Your task to perform on an android device: Open calendar and show me the fourth week of next month Image 0: 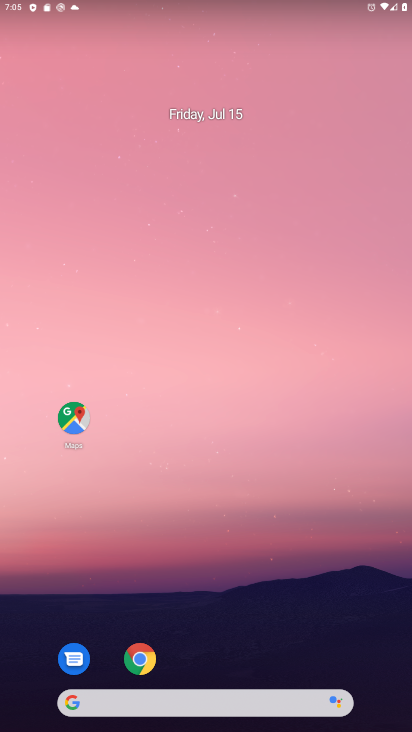
Step 0: drag from (342, 656) to (248, 22)
Your task to perform on an android device: Open calendar and show me the fourth week of next month Image 1: 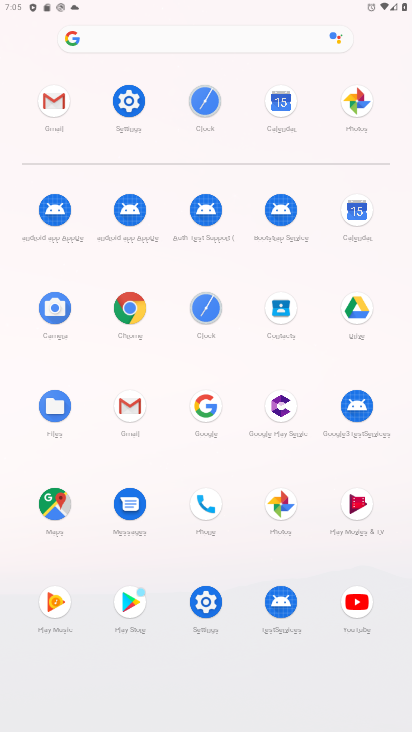
Step 1: click (356, 208)
Your task to perform on an android device: Open calendar and show me the fourth week of next month Image 2: 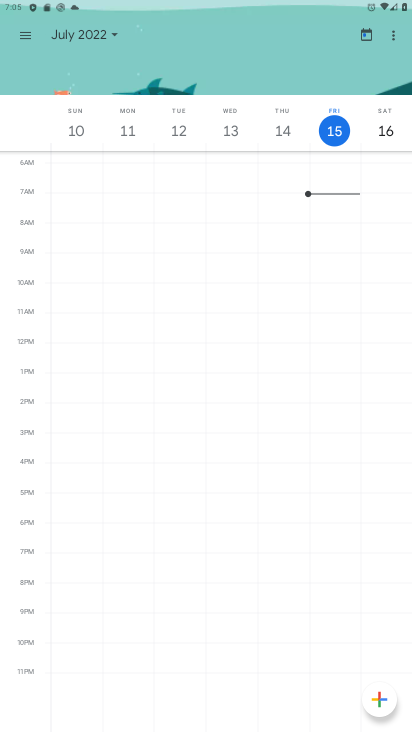
Step 2: click (112, 31)
Your task to perform on an android device: Open calendar and show me the fourth week of next month Image 3: 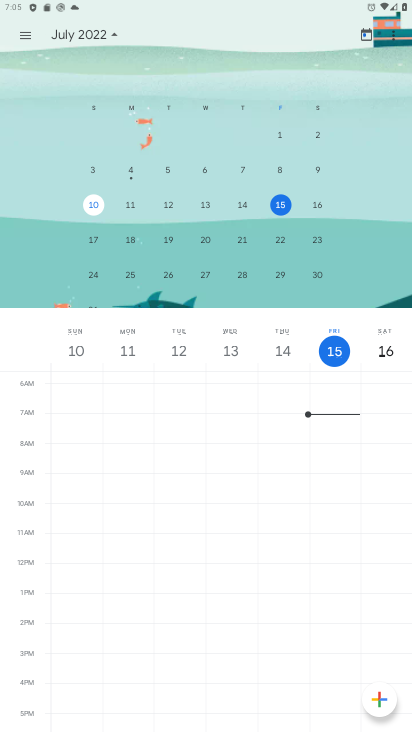
Step 3: drag from (324, 235) to (32, 223)
Your task to perform on an android device: Open calendar and show me the fourth week of next month Image 4: 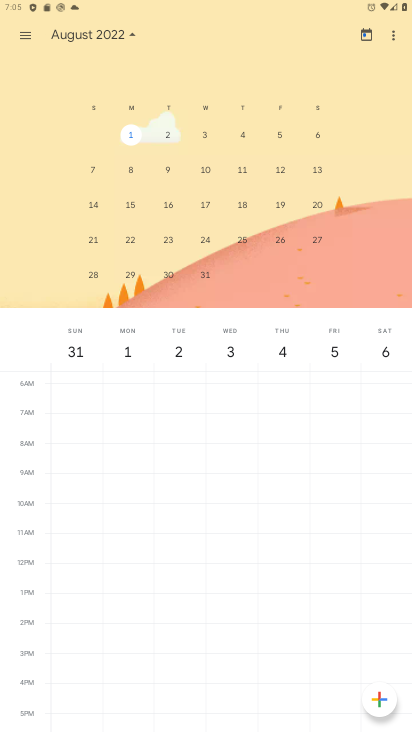
Step 4: click (87, 273)
Your task to perform on an android device: Open calendar and show me the fourth week of next month Image 5: 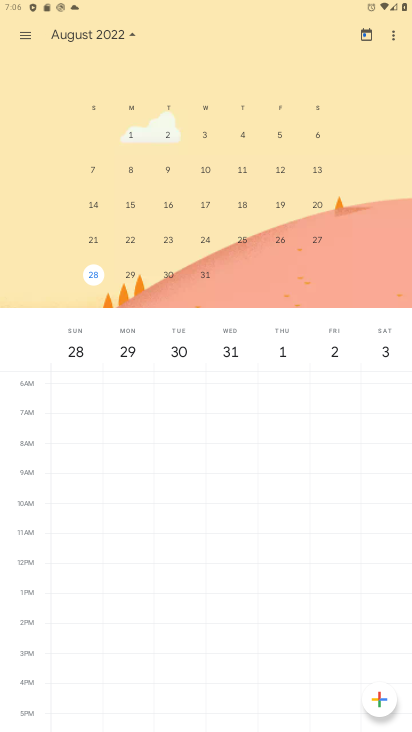
Step 5: task complete